Your task to perform on an android device: Open network settings Image 0: 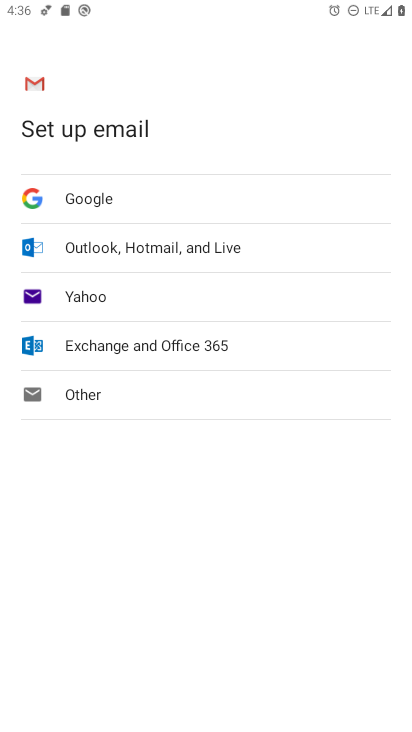
Step 0: drag from (233, 573) to (233, 340)
Your task to perform on an android device: Open network settings Image 1: 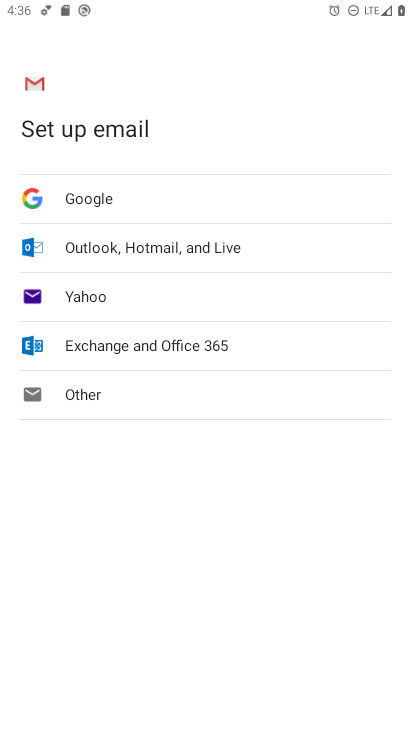
Step 1: press home button
Your task to perform on an android device: Open network settings Image 2: 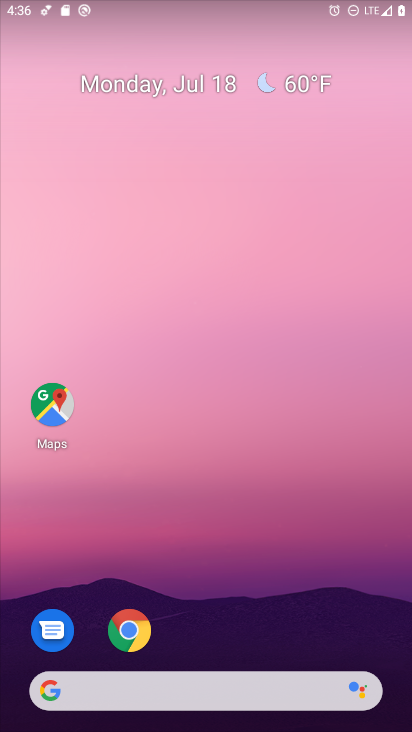
Step 2: drag from (253, 612) to (232, 55)
Your task to perform on an android device: Open network settings Image 3: 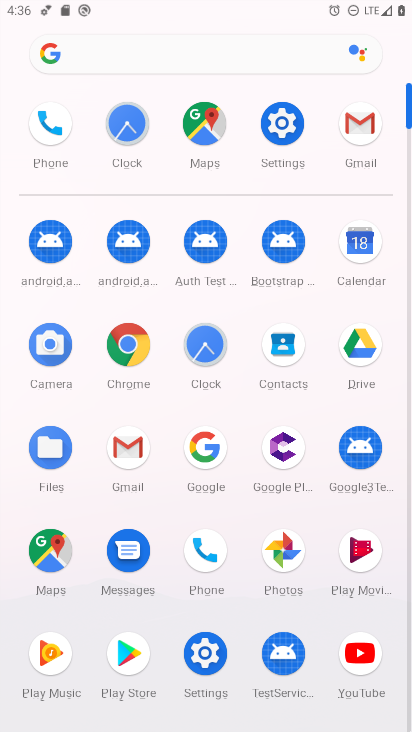
Step 3: click (281, 128)
Your task to perform on an android device: Open network settings Image 4: 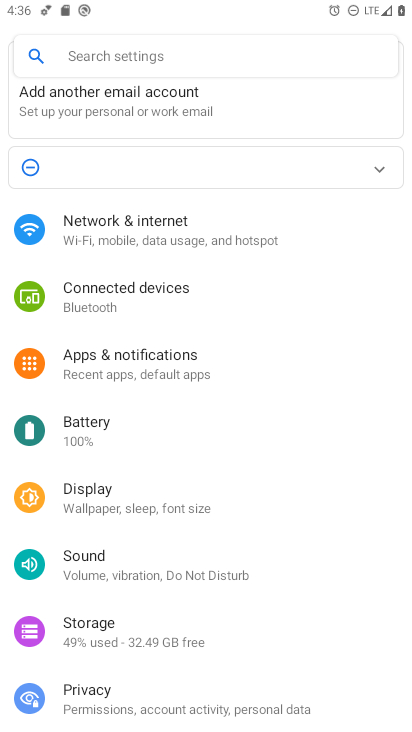
Step 4: click (138, 221)
Your task to perform on an android device: Open network settings Image 5: 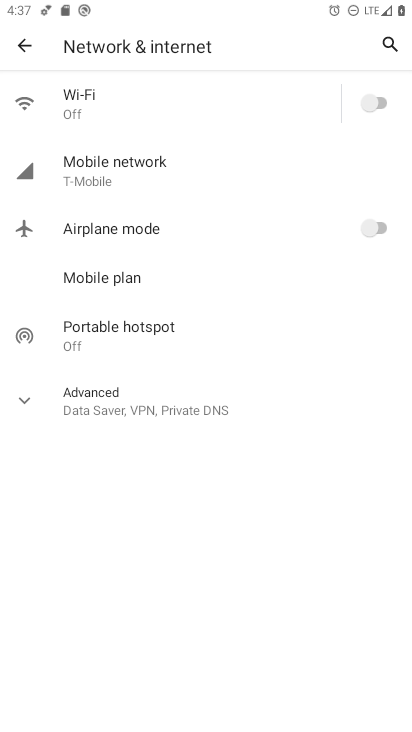
Step 5: task complete